Your task to perform on an android device: open a new tab in the chrome app Image 0: 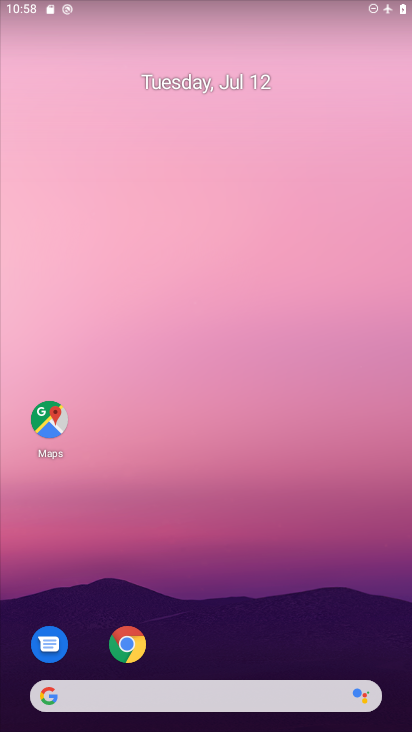
Step 0: click (128, 646)
Your task to perform on an android device: open a new tab in the chrome app Image 1: 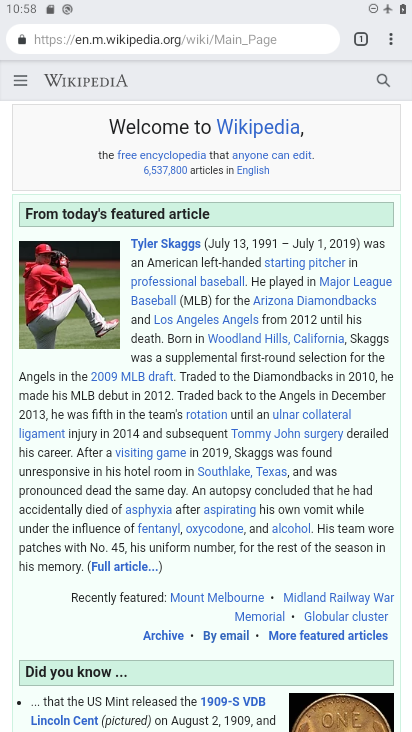
Step 1: click (391, 37)
Your task to perform on an android device: open a new tab in the chrome app Image 2: 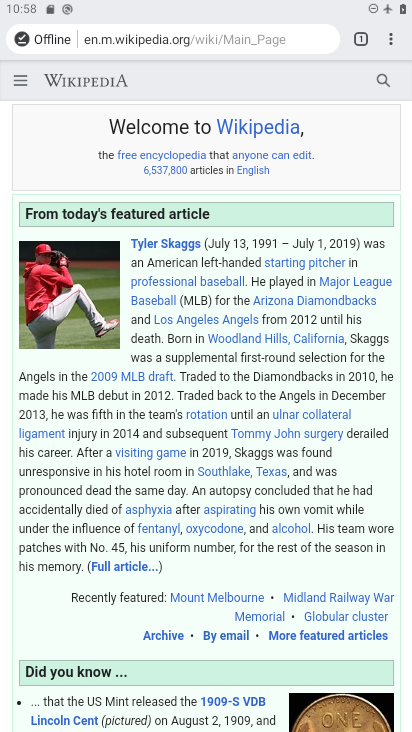
Step 2: click (392, 38)
Your task to perform on an android device: open a new tab in the chrome app Image 3: 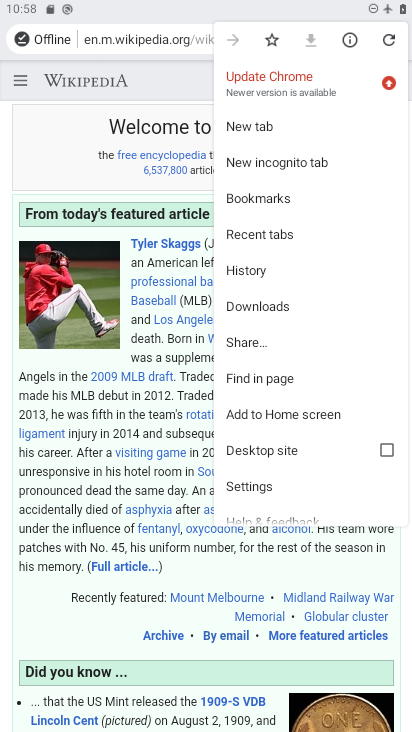
Step 3: click (238, 132)
Your task to perform on an android device: open a new tab in the chrome app Image 4: 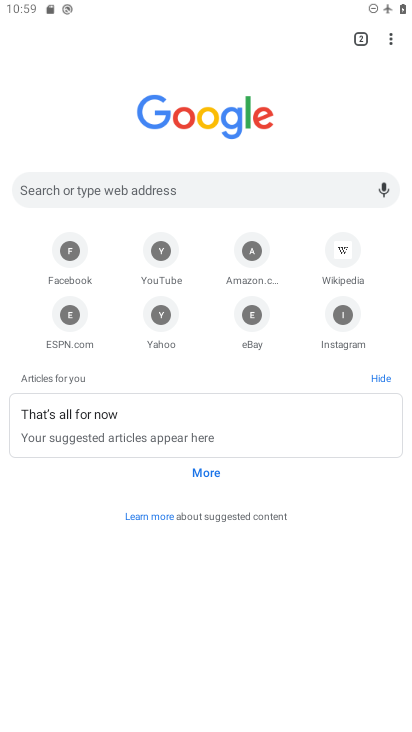
Step 4: task complete